Your task to perform on an android device: change the clock display to digital Image 0: 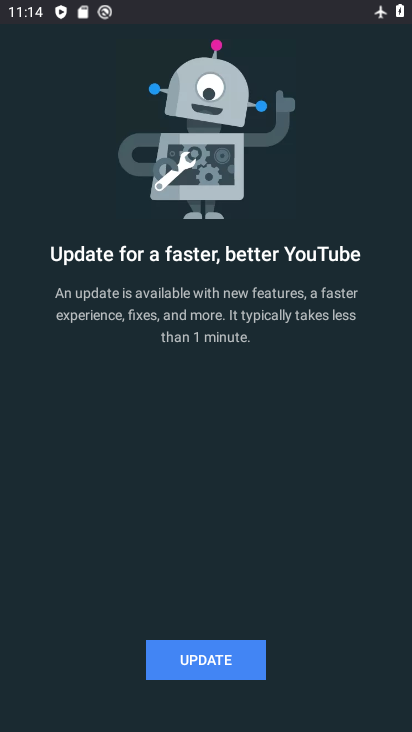
Step 0: press home button
Your task to perform on an android device: change the clock display to digital Image 1: 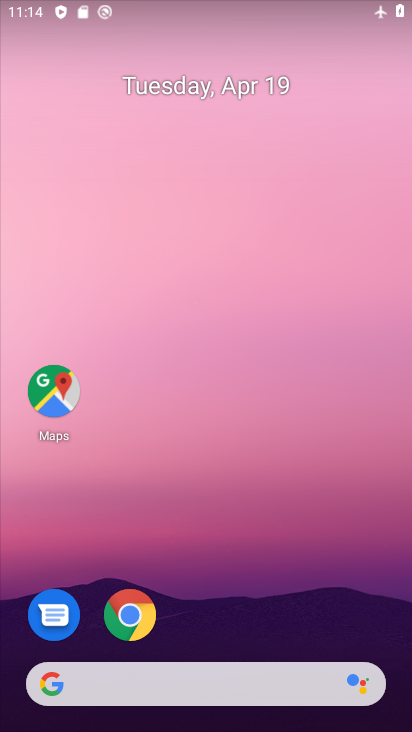
Step 1: drag from (232, 520) to (206, 118)
Your task to perform on an android device: change the clock display to digital Image 2: 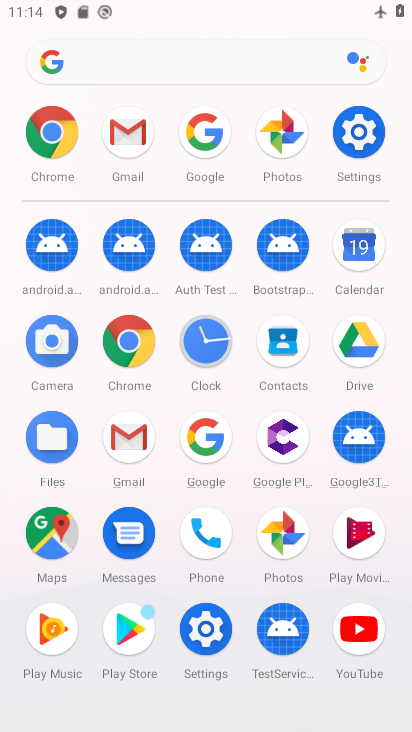
Step 2: click (214, 337)
Your task to perform on an android device: change the clock display to digital Image 3: 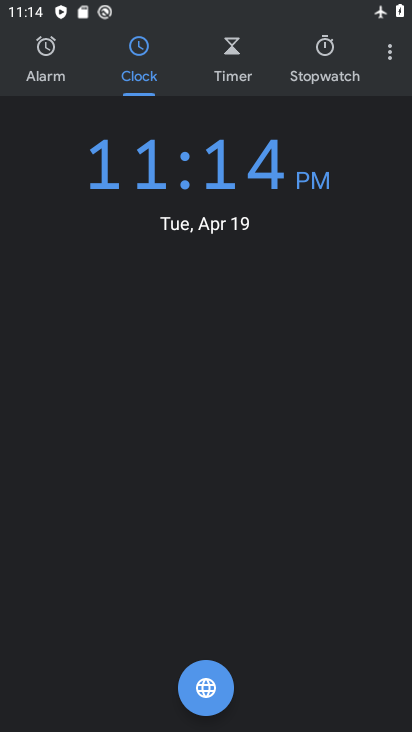
Step 3: click (390, 61)
Your task to perform on an android device: change the clock display to digital Image 4: 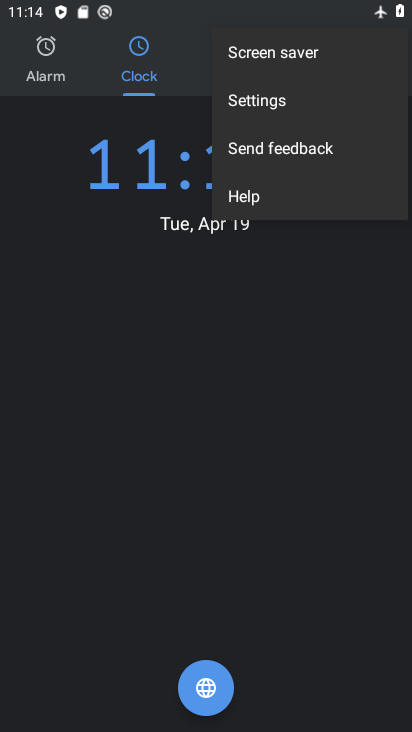
Step 4: click (268, 95)
Your task to perform on an android device: change the clock display to digital Image 5: 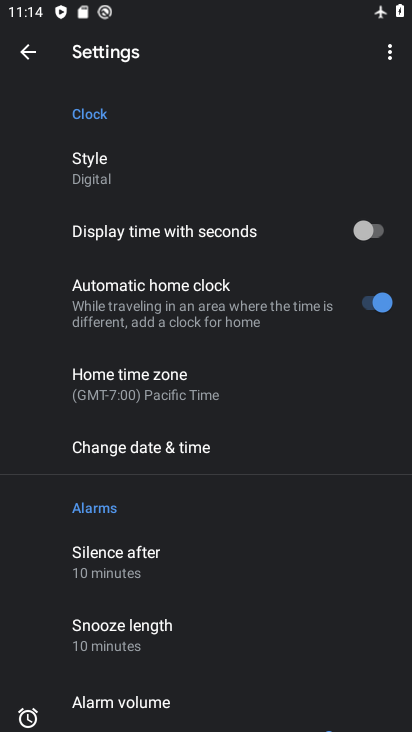
Step 5: click (139, 169)
Your task to perform on an android device: change the clock display to digital Image 6: 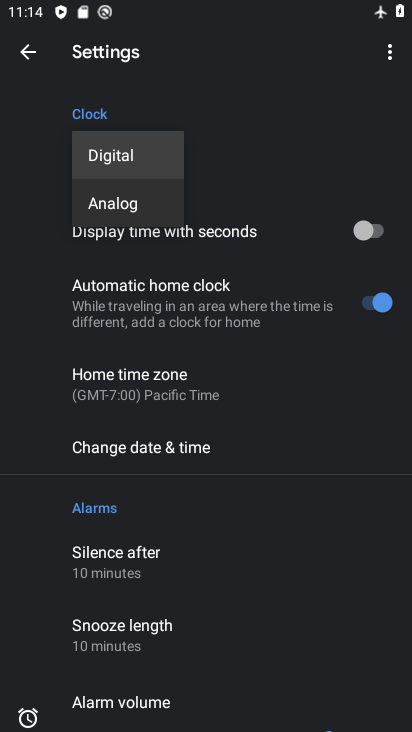
Step 6: task complete